Your task to perform on an android device: Go to Maps Image 0: 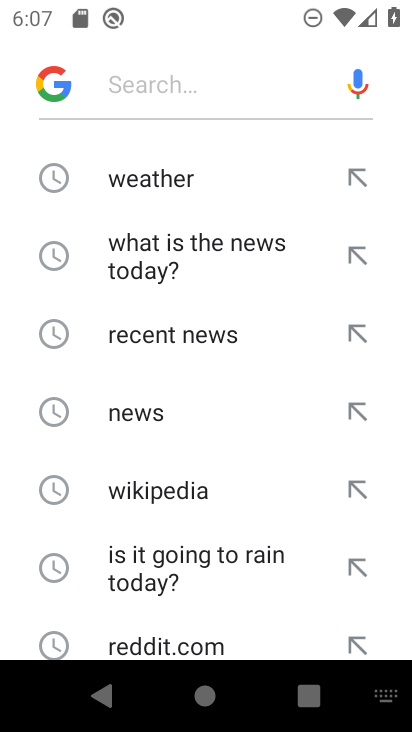
Step 0: press home button
Your task to perform on an android device: Go to Maps Image 1: 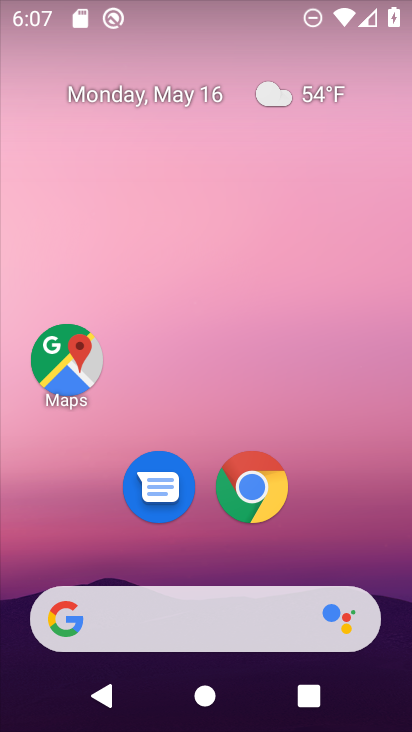
Step 1: click (78, 371)
Your task to perform on an android device: Go to Maps Image 2: 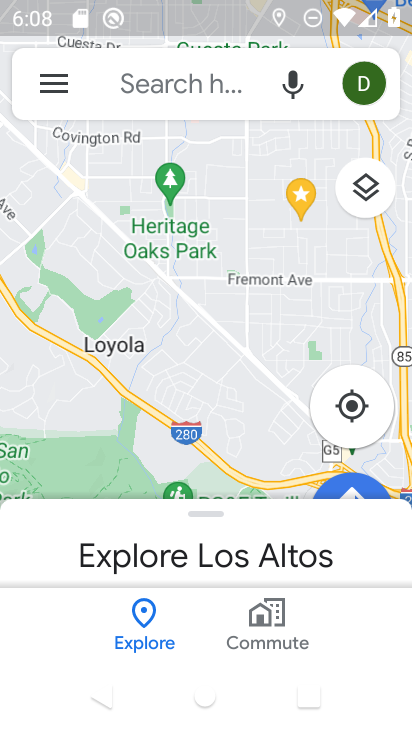
Step 2: task complete